Your task to perform on an android device: find which apps use the phone's location Image 0: 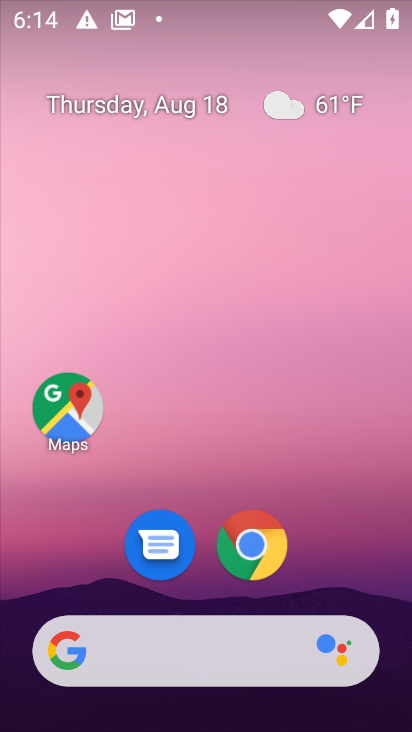
Step 0: drag from (332, 555) to (257, 0)
Your task to perform on an android device: find which apps use the phone's location Image 1: 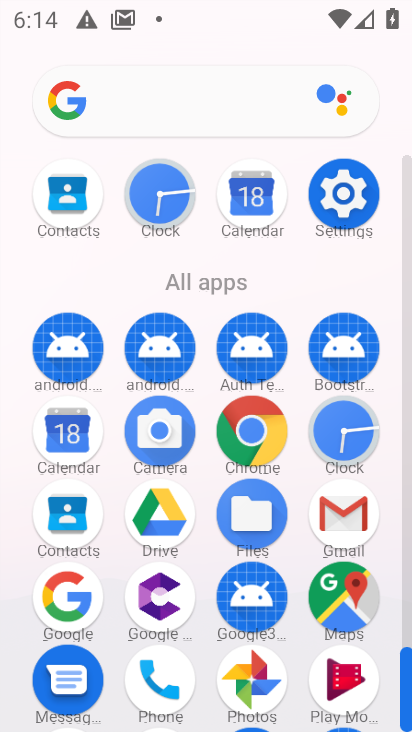
Step 1: click (344, 187)
Your task to perform on an android device: find which apps use the phone's location Image 2: 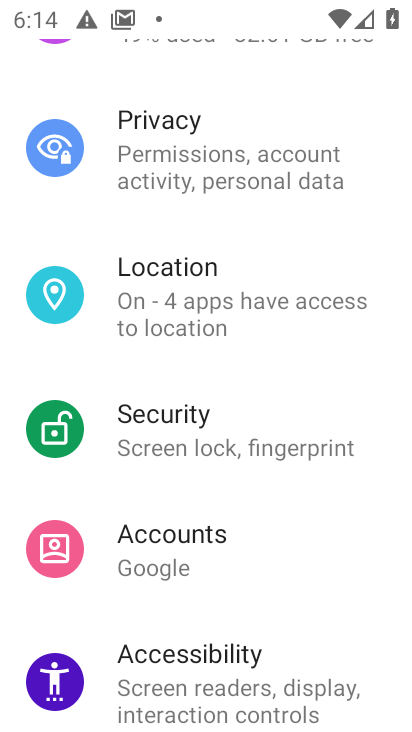
Step 2: click (171, 261)
Your task to perform on an android device: find which apps use the phone's location Image 3: 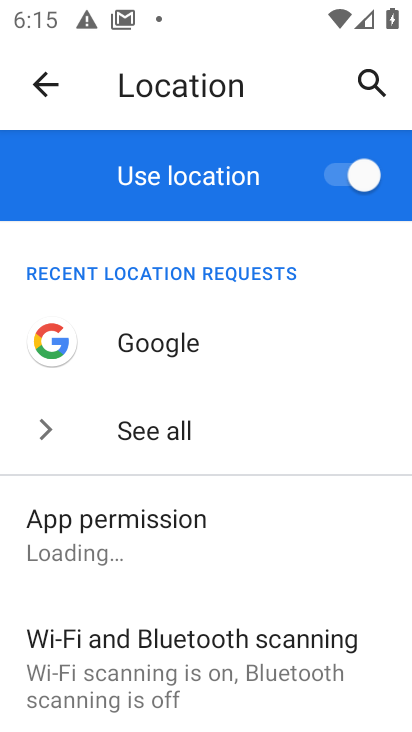
Step 3: click (154, 427)
Your task to perform on an android device: find which apps use the phone's location Image 4: 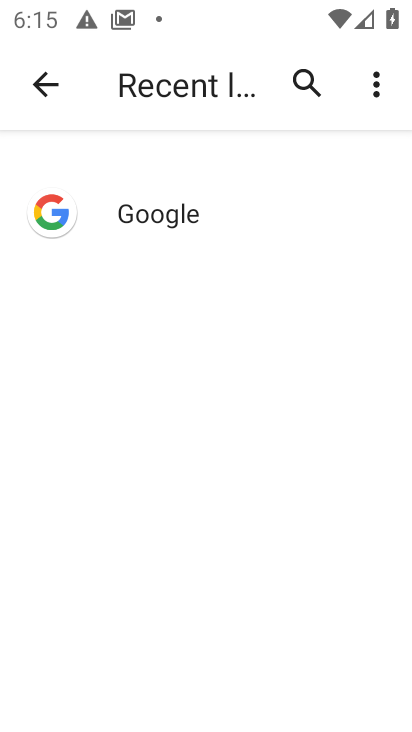
Step 4: task complete